Your task to perform on an android device: turn on translation in the chrome app Image 0: 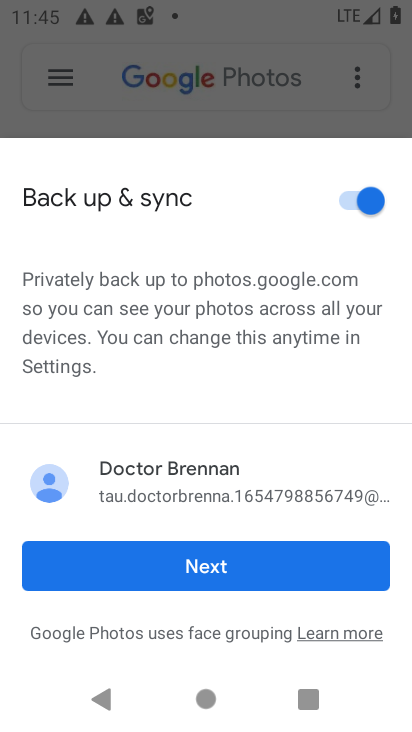
Step 0: press home button
Your task to perform on an android device: turn on translation in the chrome app Image 1: 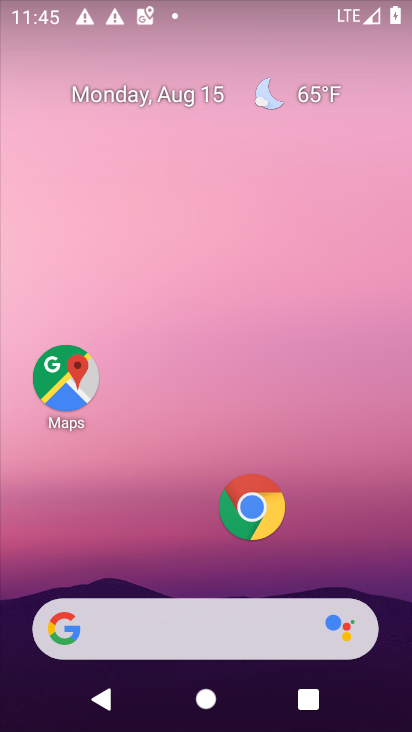
Step 1: click (253, 502)
Your task to perform on an android device: turn on translation in the chrome app Image 2: 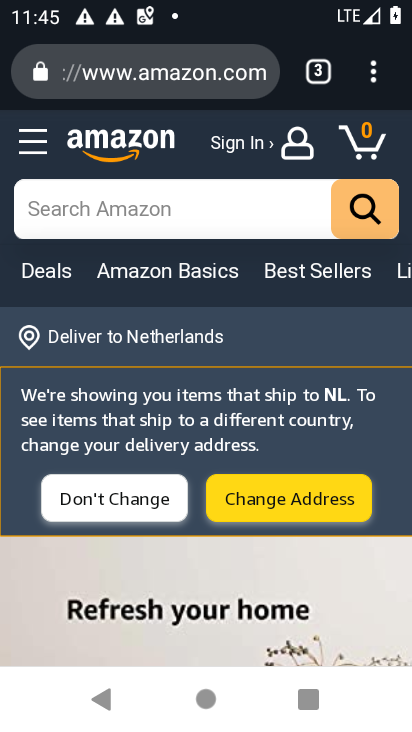
Step 2: click (372, 80)
Your task to perform on an android device: turn on translation in the chrome app Image 3: 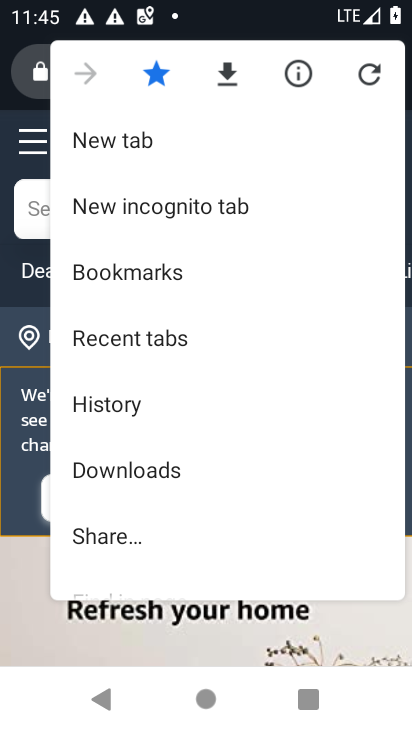
Step 3: drag from (213, 503) to (217, 128)
Your task to perform on an android device: turn on translation in the chrome app Image 4: 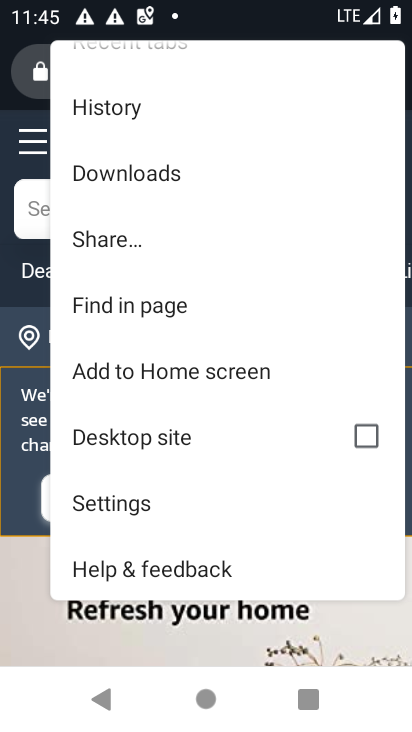
Step 4: click (115, 502)
Your task to perform on an android device: turn on translation in the chrome app Image 5: 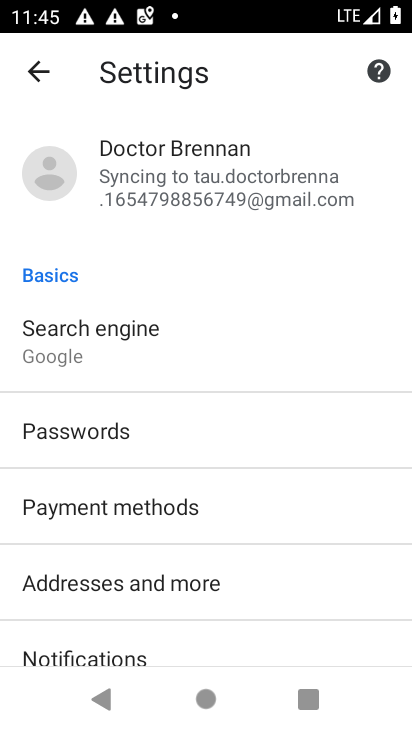
Step 5: drag from (253, 601) to (232, 344)
Your task to perform on an android device: turn on translation in the chrome app Image 6: 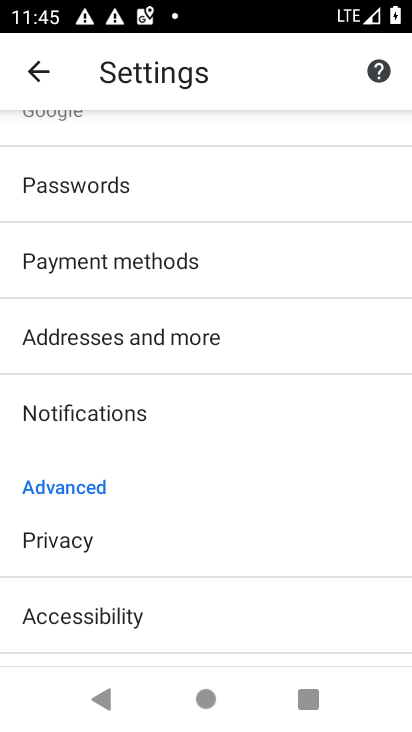
Step 6: drag from (225, 554) to (194, 266)
Your task to perform on an android device: turn on translation in the chrome app Image 7: 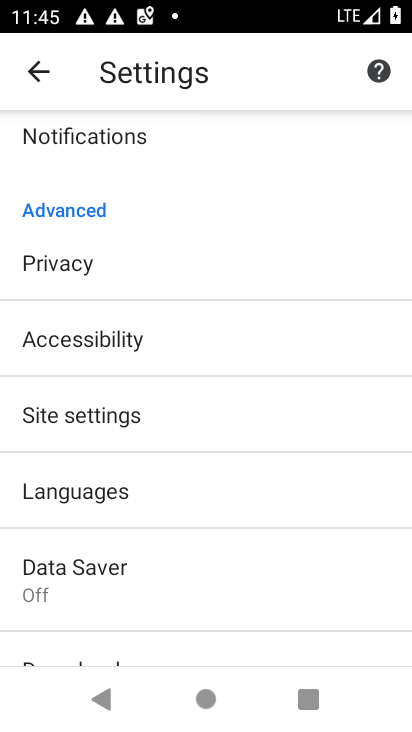
Step 7: click (88, 497)
Your task to perform on an android device: turn on translation in the chrome app Image 8: 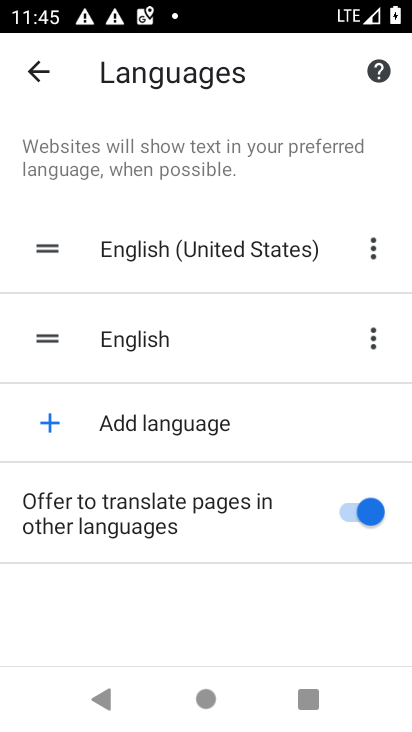
Step 8: task complete